Your task to perform on an android device: Go to Google maps Image 0: 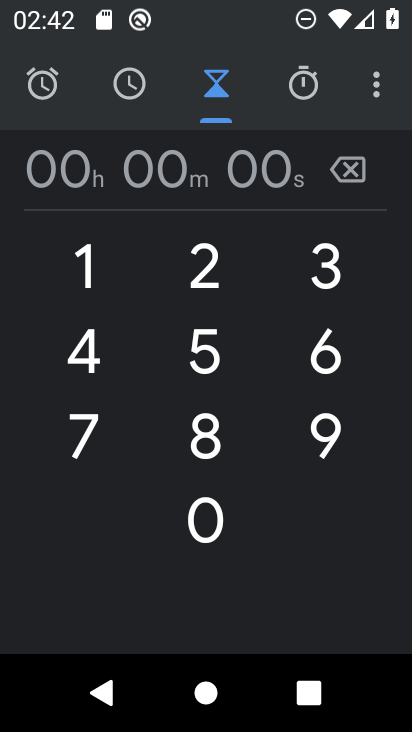
Step 0: press home button
Your task to perform on an android device: Go to Google maps Image 1: 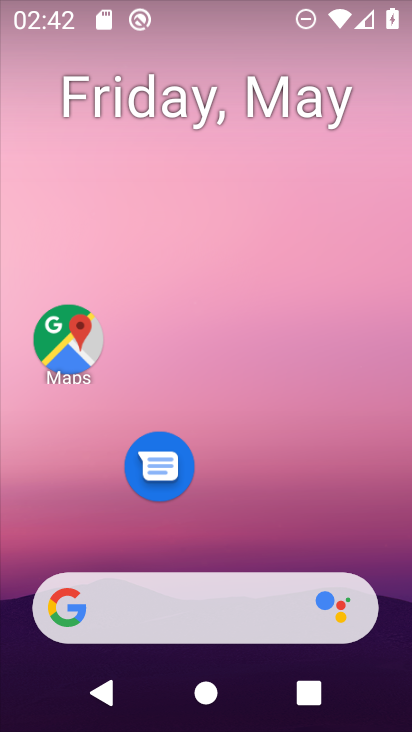
Step 1: click (55, 311)
Your task to perform on an android device: Go to Google maps Image 2: 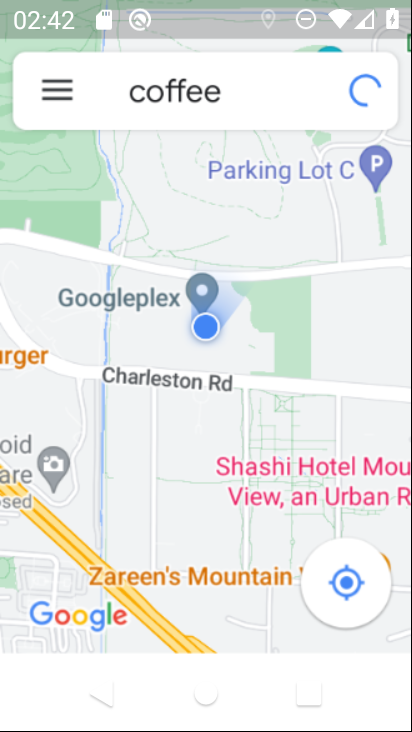
Step 2: task complete